Your task to perform on an android device: change your default location settings in chrome Image 0: 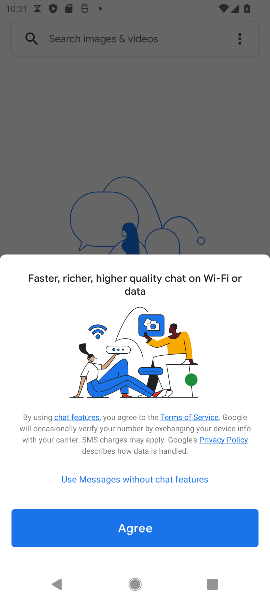
Step 0: press home button
Your task to perform on an android device: change your default location settings in chrome Image 1: 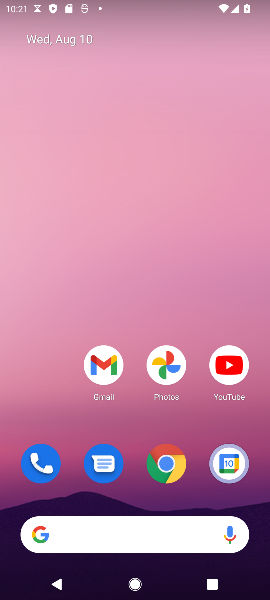
Step 1: click (155, 467)
Your task to perform on an android device: change your default location settings in chrome Image 2: 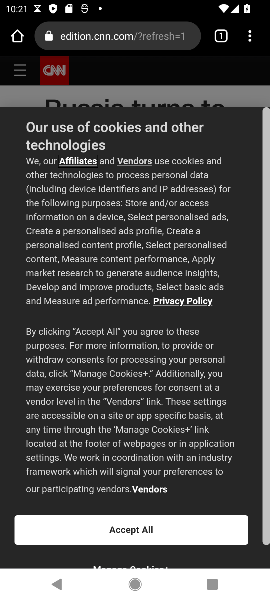
Step 2: click (251, 40)
Your task to perform on an android device: change your default location settings in chrome Image 3: 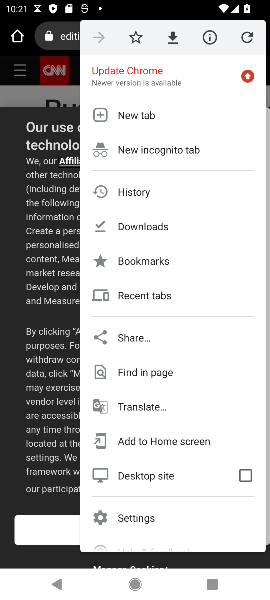
Step 3: click (126, 521)
Your task to perform on an android device: change your default location settings in chrome Image 4: 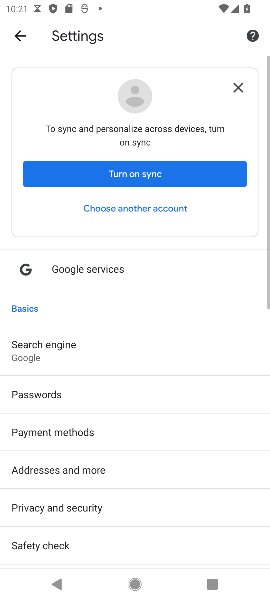
Step 4: drag from (139, 537) to (160, 308)
Your task to perform on an android device: change your default location settings in chrome Image 5: 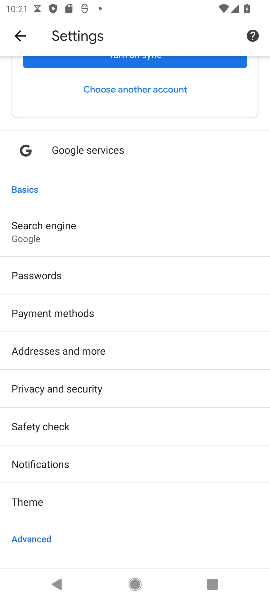
Step 5: drag from (129, 492) to (119, 324)
Your task to perform on an android device: change your default location settings in chrome Image 6: 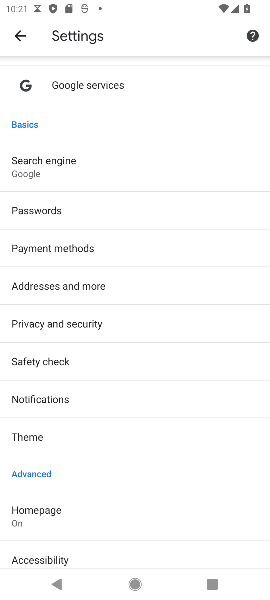
Step 6: drag from (157, 505) to (156, 166)
Your task to perform on an android device: change your default location settings in chrome Image 7: 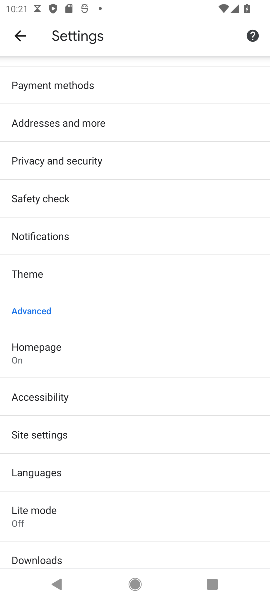
Step 7: drag from (123, 530) to (140, 314)
Your task to perform on an android device: change your default location settings in chrome Image 8: 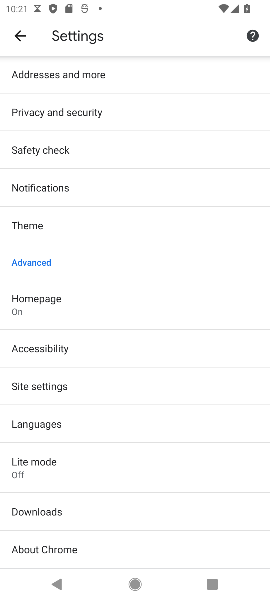
Step 8: drag from (176, 158) to (203, 581)
Your task to perform on an android device: change your default location settings in chrome Image 9: 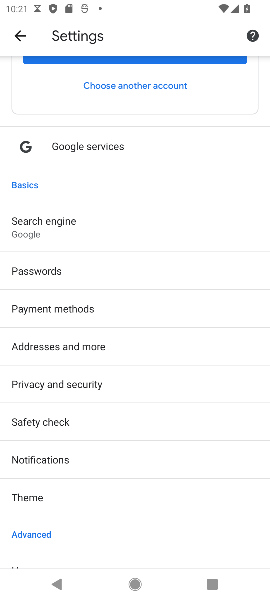
Step 9: drag from (166, 515) to (174, 234)
Your task to perform on an android device: change your default location settings in chrome Image 10: 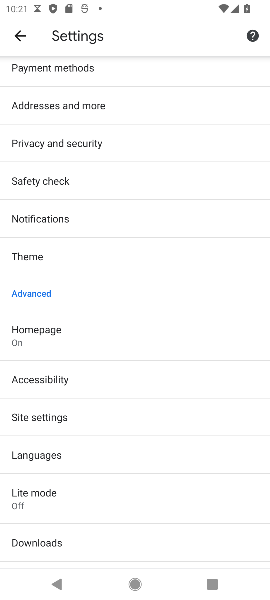
Step 10: click (40, 415)
Your task to perform on an android device: change your default location settings in chrome Image 11: 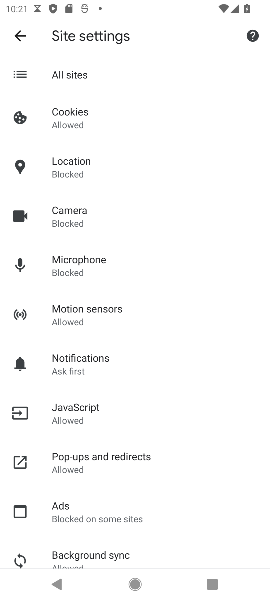
Step 11: click (79, 162)
Your task to perform on an android device: change your default location settings in chrome Image 12: 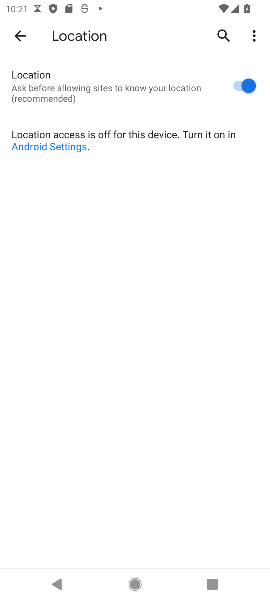
Step 12: task complete